Your task to perform on an android device: Go to display settings Image 0: 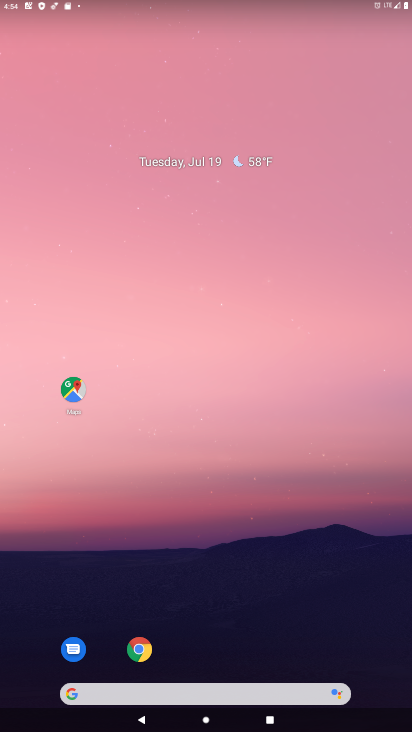
Step 0: click (226, 56)
Your task to perform on an android device: Go to display settings Image 1: 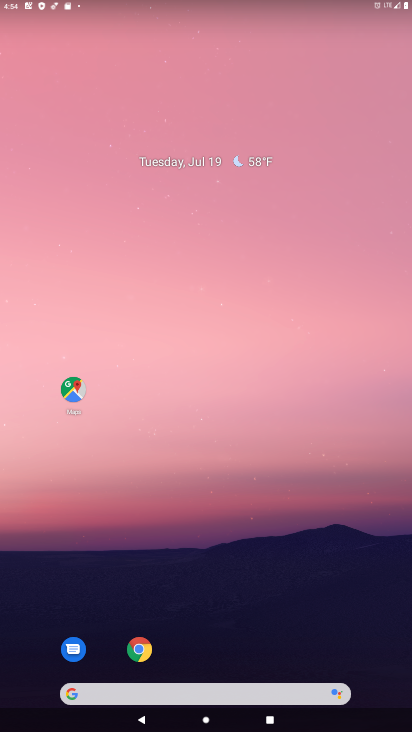
Step 1: drag from (185, 652) to (182, 33)
Your task to perform on an android device: Go to display settings Image 2: 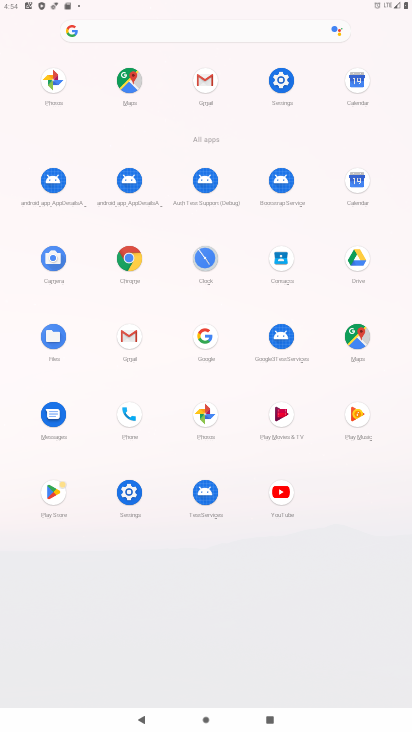
Step 2: click (288, 115)
Your task to perform on an android device: Go to display settings Image 3: 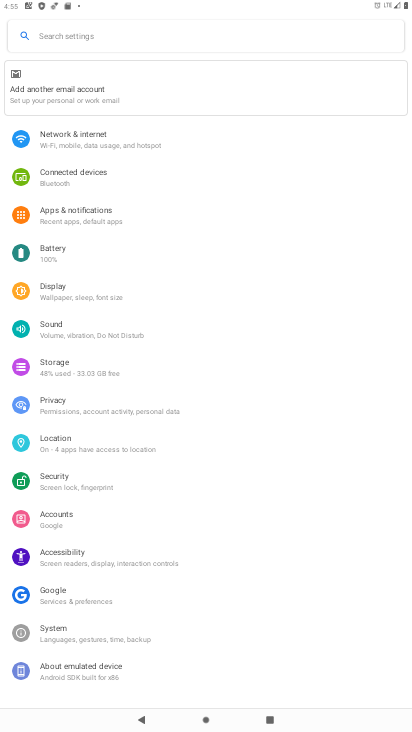
Step 3: click (52, 298)
Your task to perform on an android device: Go to display settings Image 4: 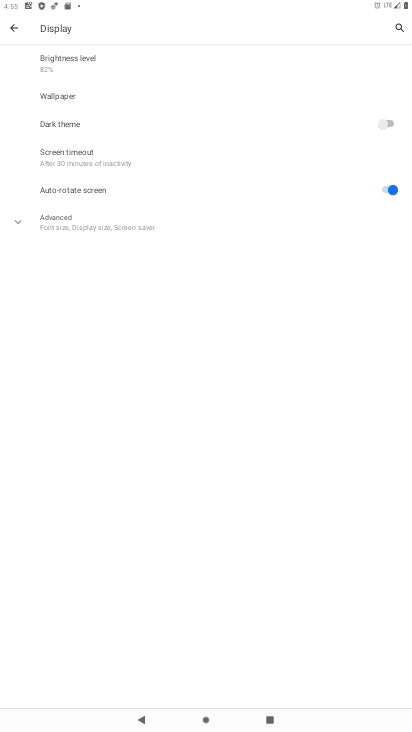
Step 4: task complete